Your task to perform on an android device: create a new album in the google photos Image 0: 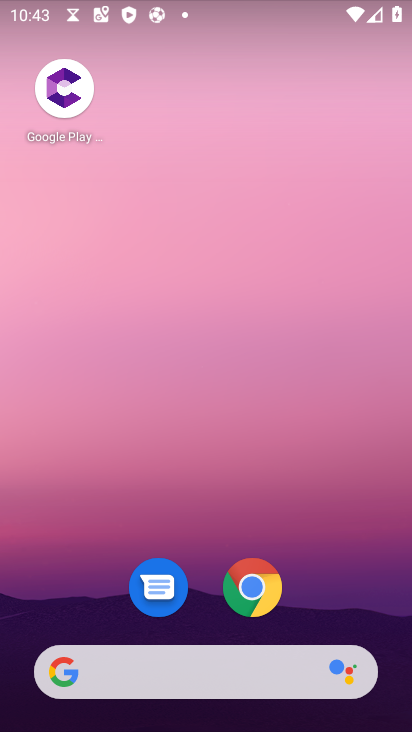
Step 0: drag from (321, 561) to (164, 76)
Your task to perform on an android device: create a new album in the google photos Image 1: 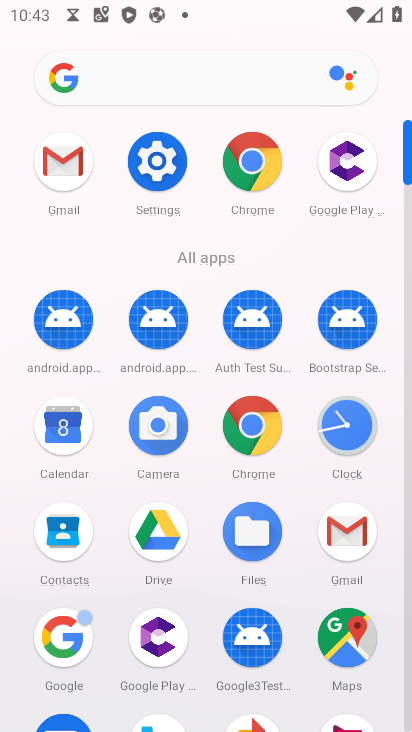
Step 1: drag from (213, 567) to (203, 317)
Your task to perform on an android device: create a new album in the google photos Image 2: 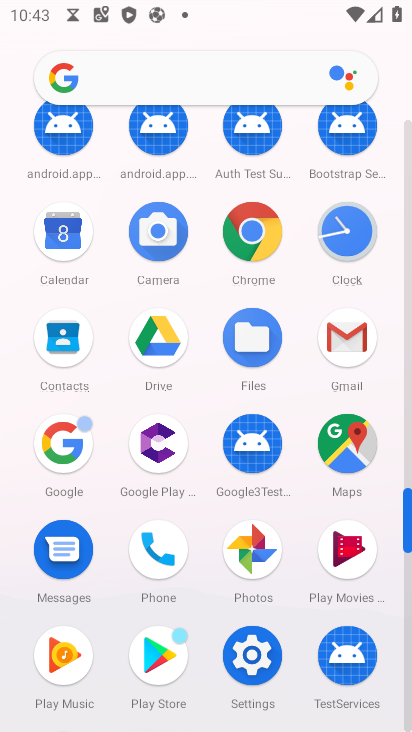
Step 2: click (257, 574)
Your task to perform on an android device: create a new album in the google photos Image 3: 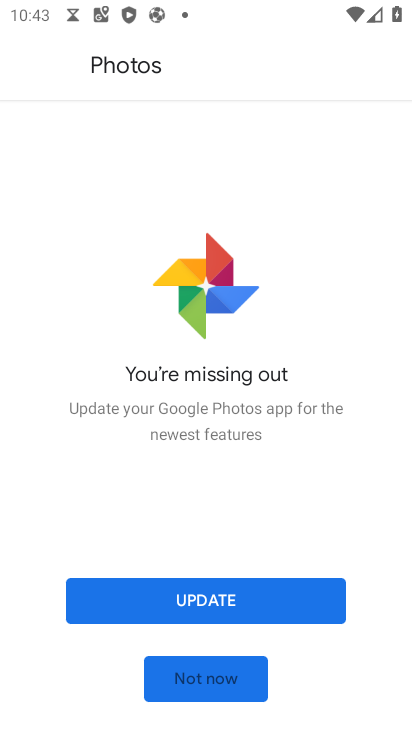
Step 3: click (216, 679)
Your task to perform on an android device: create a new album in the google photos Image 4: 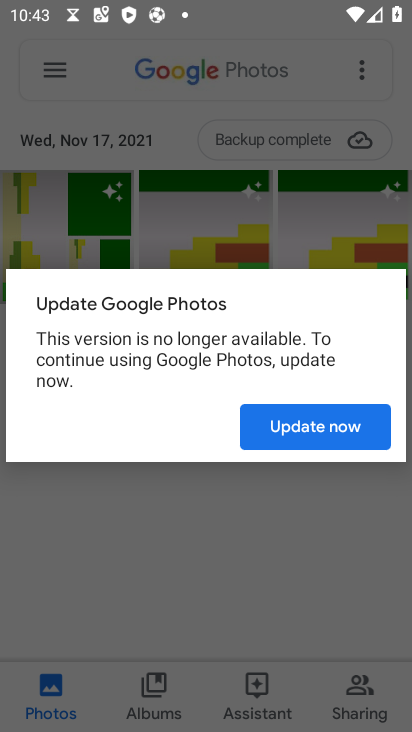
Step 4: click (292, 528)
Your task to perform on an android device: create a new album in the google photos Image 5: 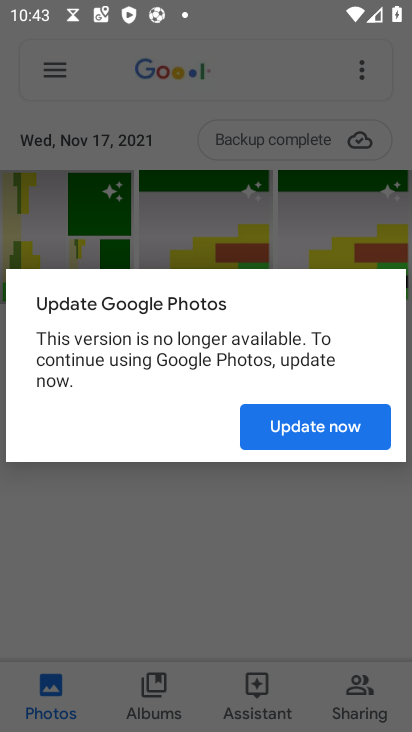
Step 5: click (310, 445)
Your task to perform on an android device: create a new album in the google photos Image 6: 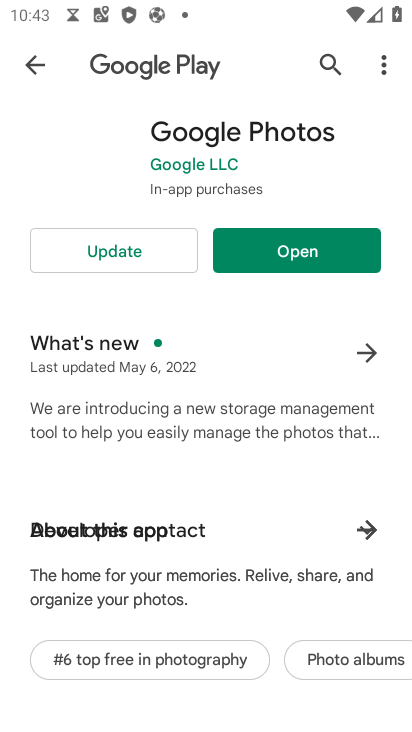
Step 6: press back button
Your task to perform on an android device: create a new album in the google photos Image 7: 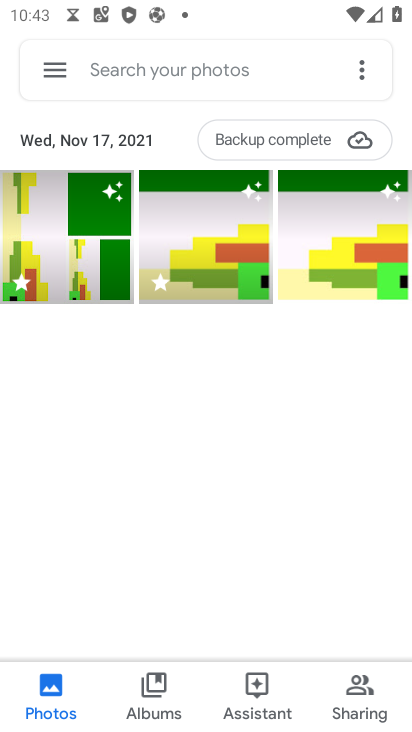
Step 7: click (152, 680)
Your task to perform on an android device: create a new album in the google photos Image 8: 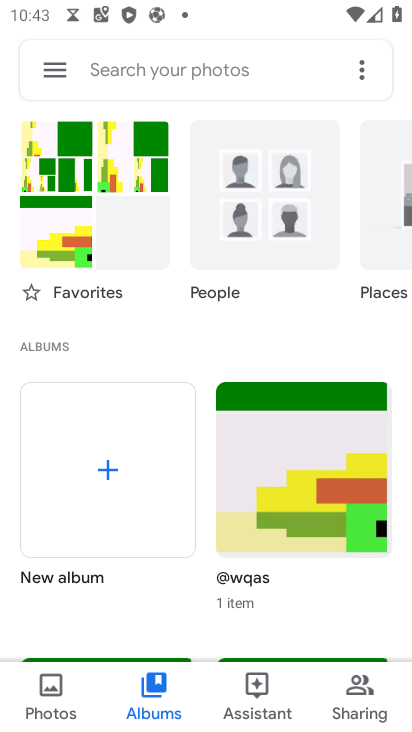
Step 8: click (104, 475)
Your task to perform on an android device: create a new album in the google photos Image 9: 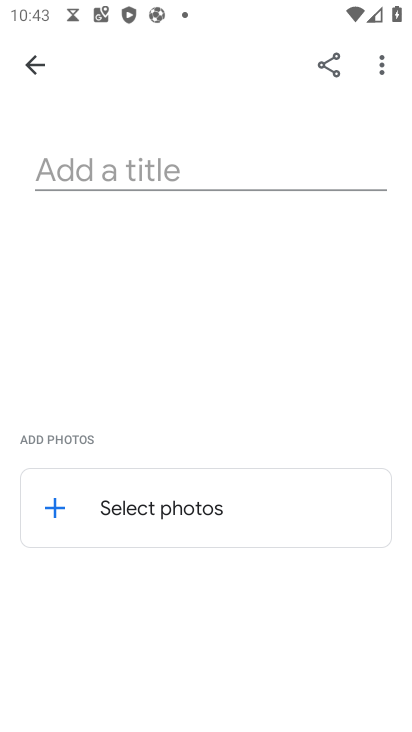
Step 9: click (156, 176)
Your task to perform on an android device: create a new album in the google photos Image 10: 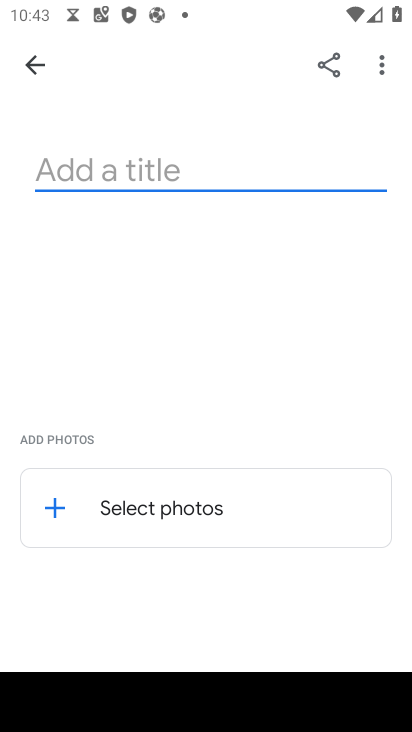
Step 10: type "aaahay"
Your task to perform on an android device: create a new album in the google photos Image 11: 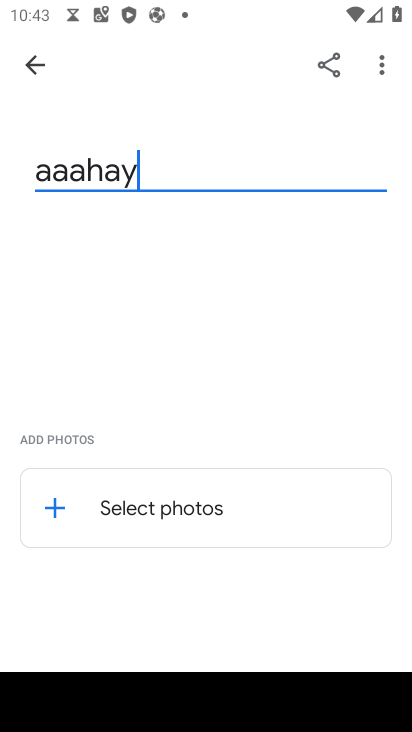
Step 11: click (165, 522)
Your task to perform on an android device: create a new album in the google photos Image 12: 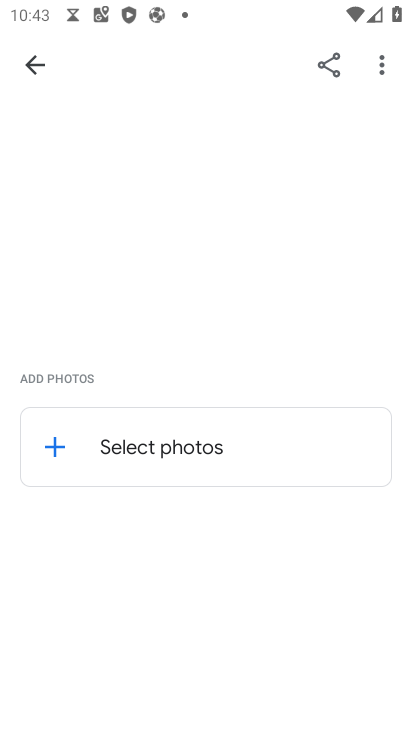
Step 12: click (62, 453)
Your task to perform on an android device: create a new album in the google photos Image 13: 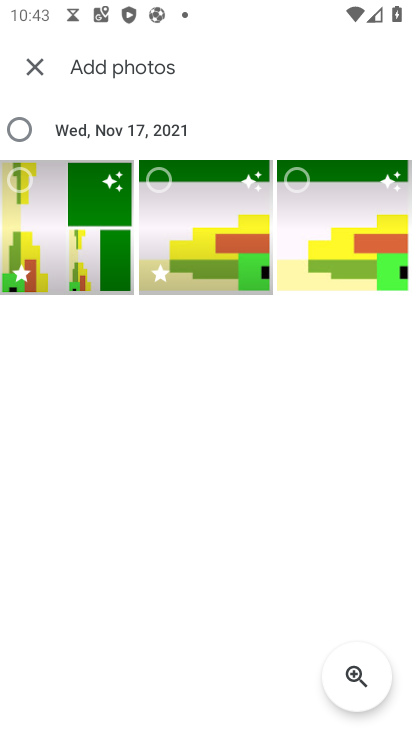
Step 13: click (18, 115)
Your task to perform on an android device: create a new album in the google photos Image 14: 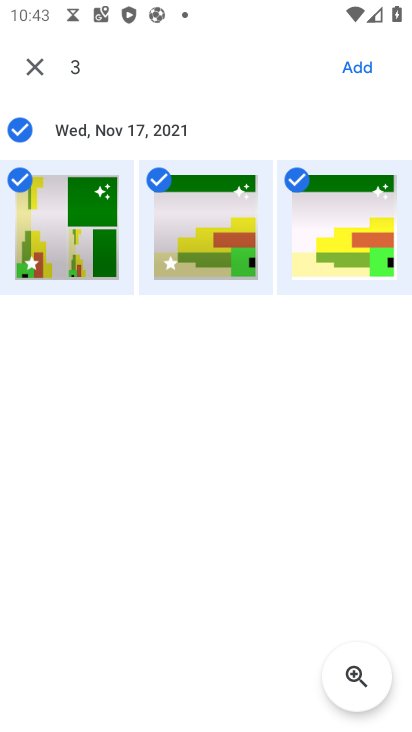
Step 14: click (361, 63)
Your task to perform on an android device: create a new album in the google photos Image 15: 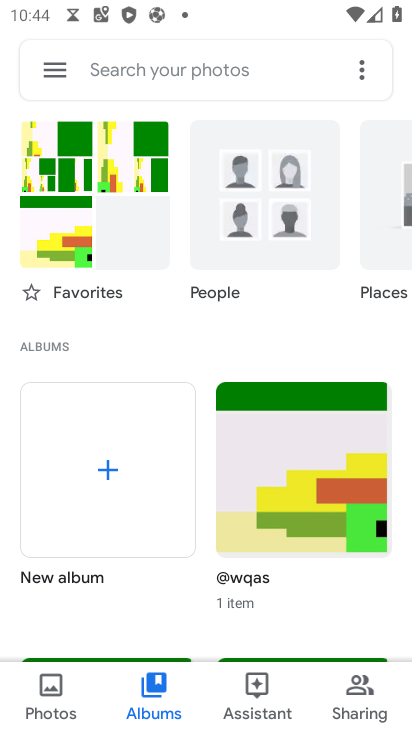
Step 15: task complete